Your task to perform on an android device: change the clock display to analog Image 0: 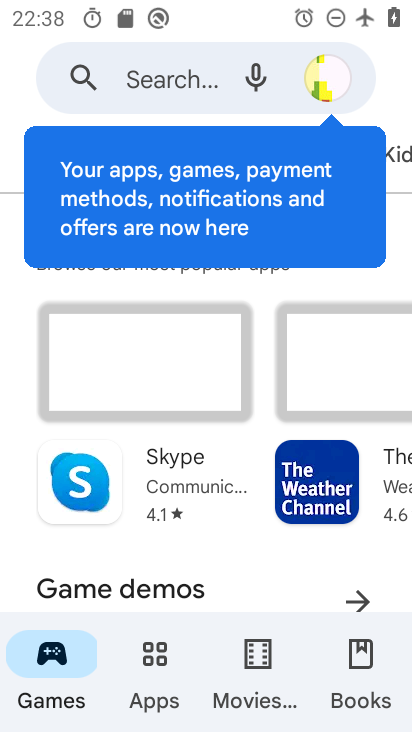
Step 0: press home button
Your task to perform on an android device: change the clock display to analog Image 1: 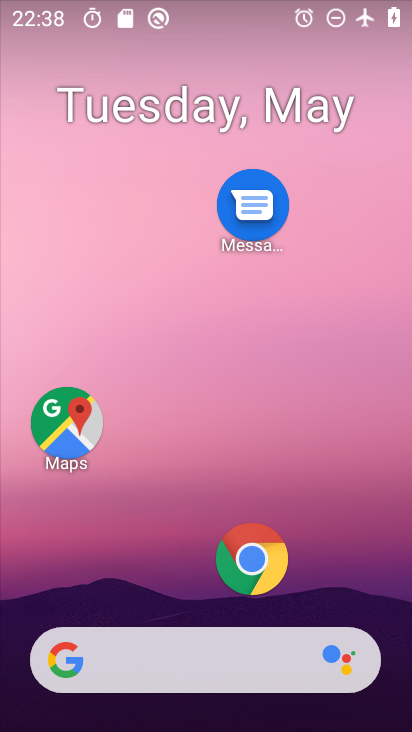
Step 1: drag from (173, 578) to (192, 190)
Your task to perform on an android device: change the clock display to analog Image 2: 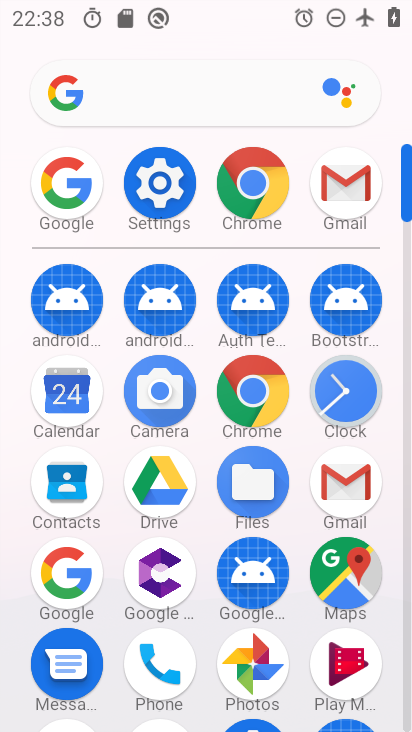
Step 2: click (365, 378)
Your task to perform on an android device: change the clock display to analog Image 3: 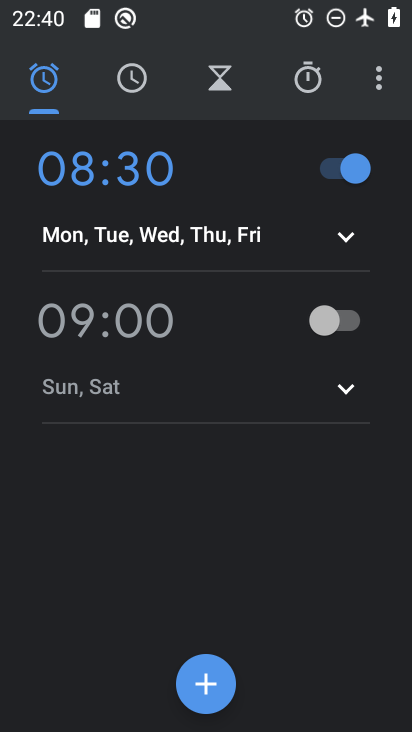
Step 3: click (378, 86)
Your task to perform on an android device: change the clock display to analog Image 4: 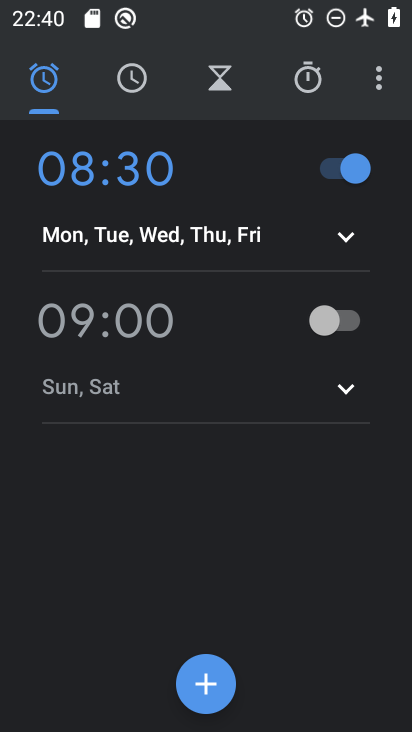
Step 4: click (375, 85)
Your task to perform on an android device: change the clock display to analog Image 5: 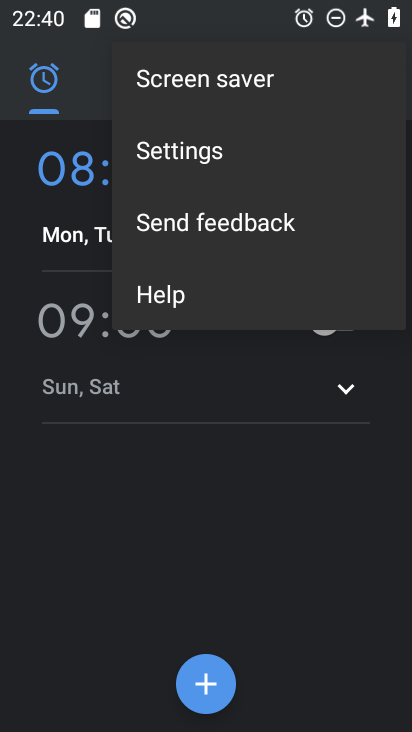
Step 5: click (183, 128)
Your task to perform on an android device: change the clock display to analog Image 6: 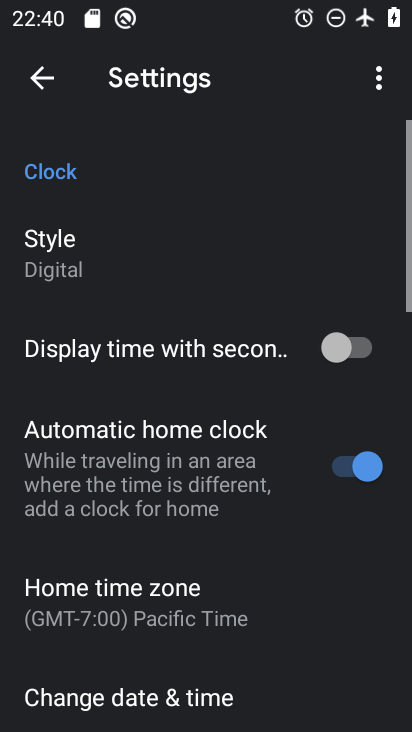
Step 6: click (102, 242)
Your task to perform on an android device: change the clock display to analog Image 7: 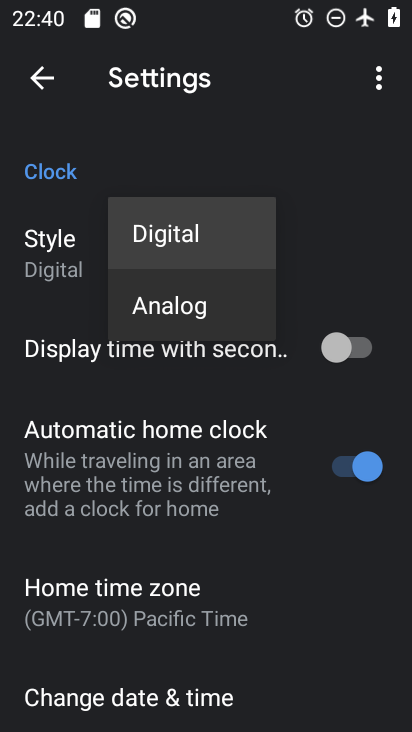
Step 7: click (164, 306)
Your task to perform on an android device: change the clock display to analog Image 8: 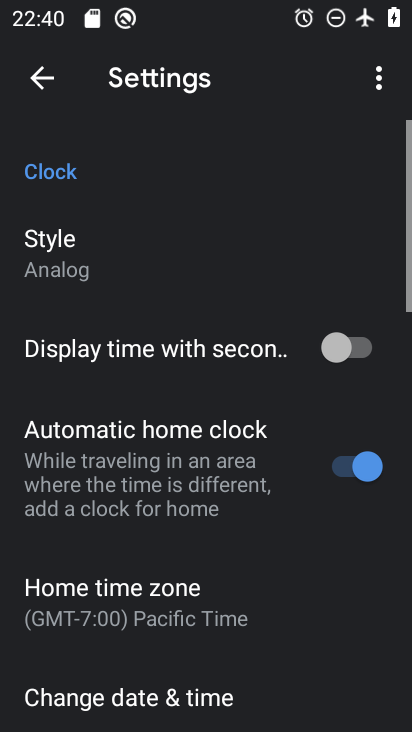
Step 8: task complete